Your task to perform on an android device: change the upload size in google photos Image 0: 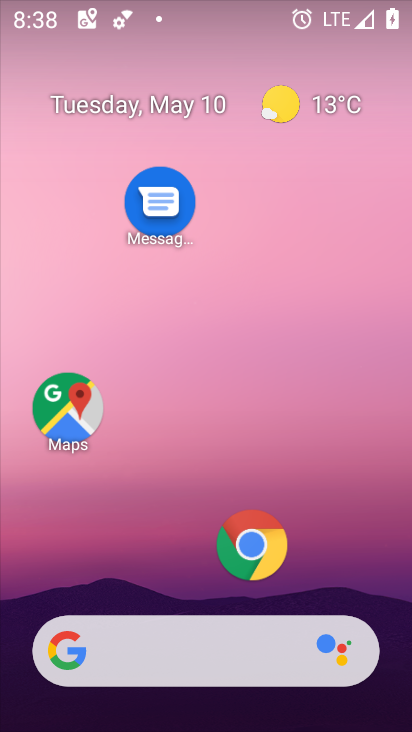
Step 0: drag from (193, 593) to (241, 69)
Your task to perform on an android device: change the upload size in google photos Image 1: 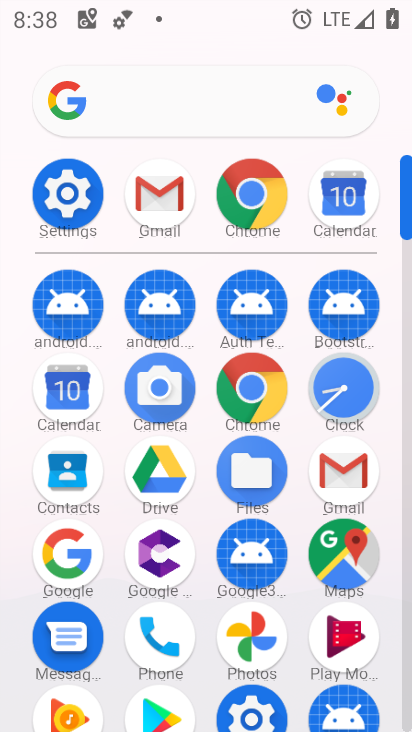
Step 1: click (251, 626)
Your task to perform on an android device: change the upload size in google photos Image 2: 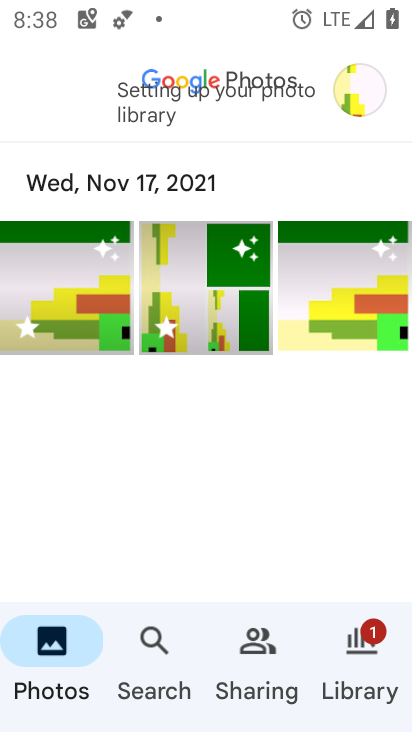
Step 2: click (363, 94)
Your task to perform on an android device: change the upload size in google photos Image 3: 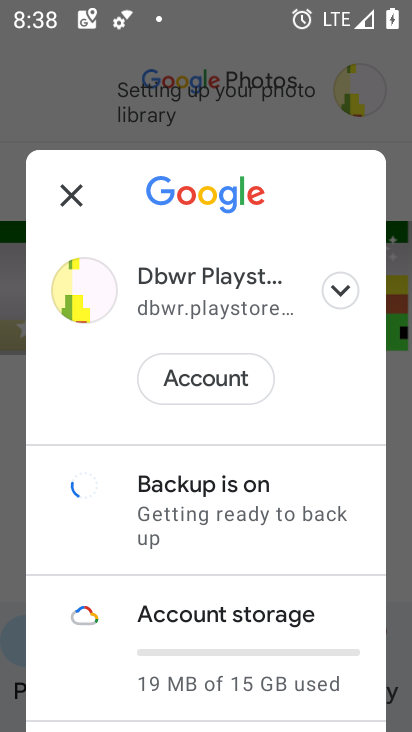
Step 3: click (141, 537)
Your task to perform on an android device: change the upload size in google photos Image 4: 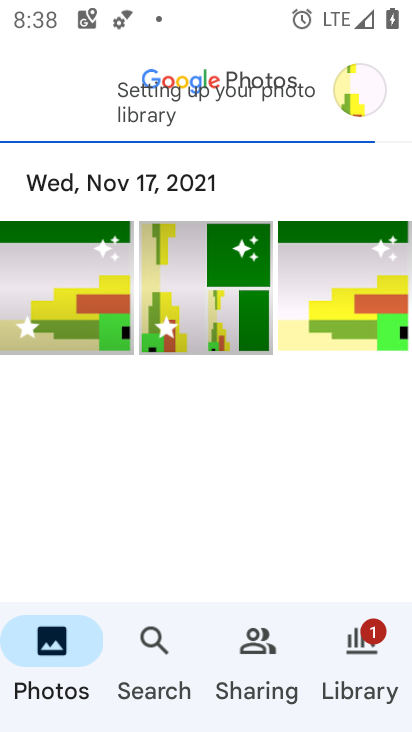
Step 4: click (360, 87)
Your task to perform on an android device: change the upload size in google photos Image 5: 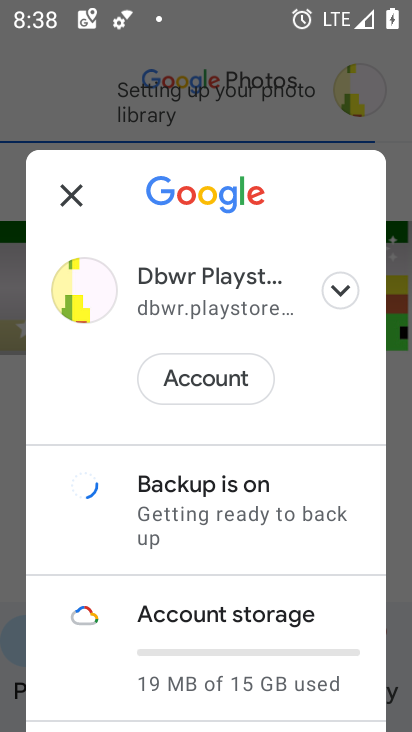
Step 5: click (236, 507)
Your task to perform on an android device: change the upload size in google photos Image 6: 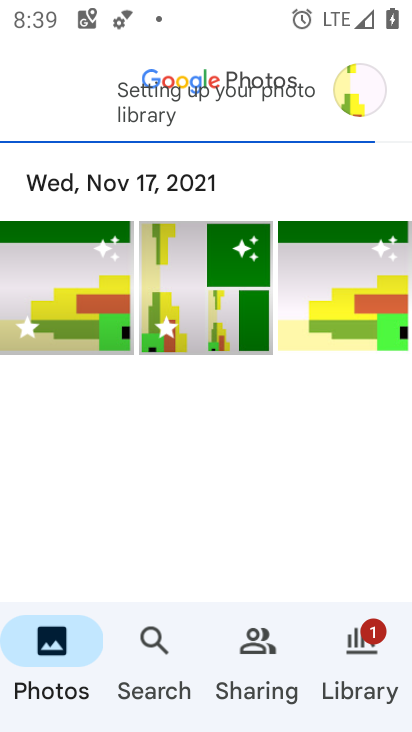
Step 6: click (350, 81)
Your task to perform on an android device: change the upload size in google photos Image 7: 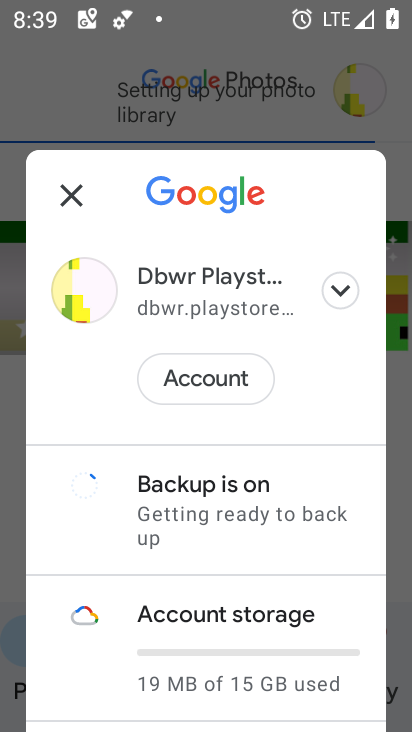
Step 7: drag from (202, 629) to (200, 275)
Your task to perform on an android device: change the upload size in google photos Image 8: 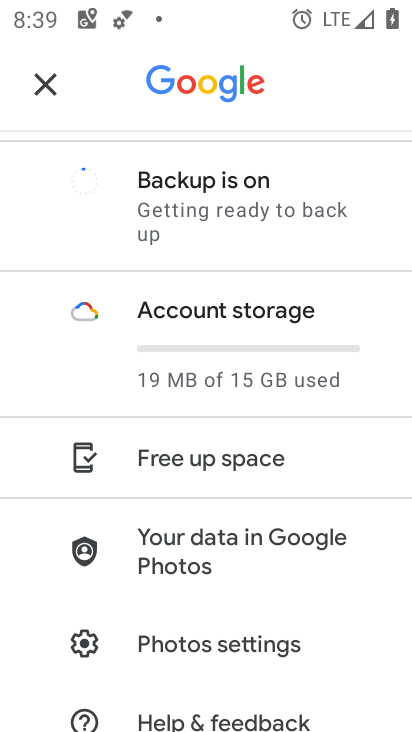
Step 8: click (224, 635)
Your task to perform on an android device: change the upload size in google photos Image 9: 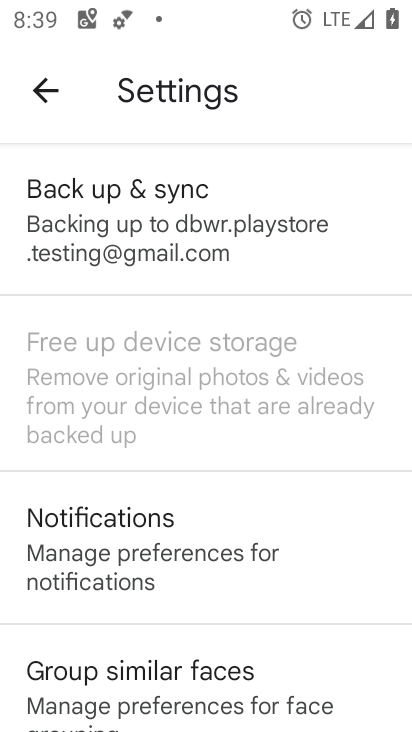
Step 9: click (140, 234)
Your task to perform on an android device: change the upload size in google photos Image 10: 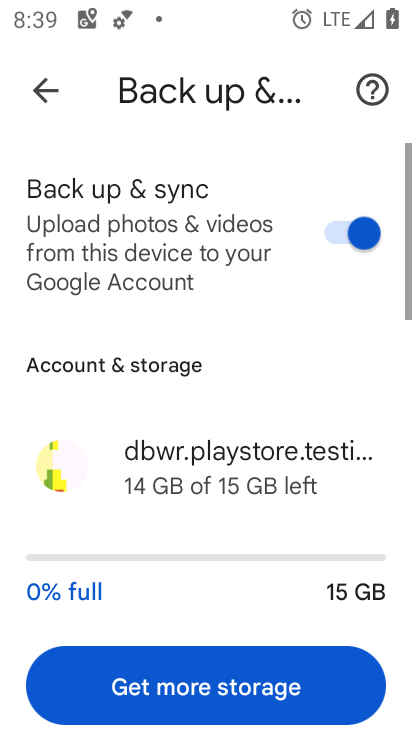
Step 10: drag from (202, 544) to (230, 133)
Your task to perform on an android device: change the upload size in google photos Image 11: 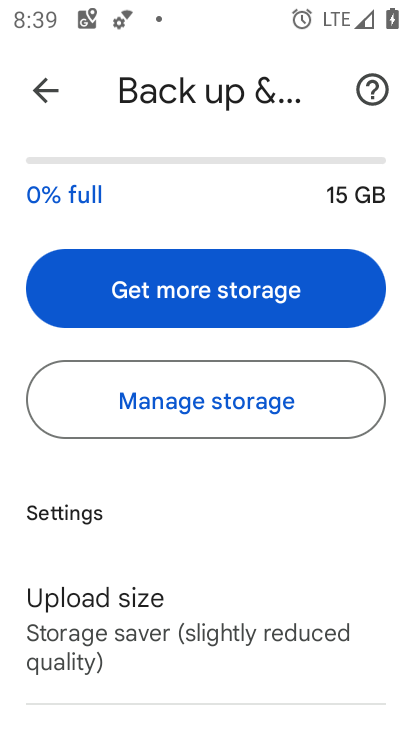
Step 11: click (187, 603)
Your task to perform on an android device: change the upload size in google photos Image 12: 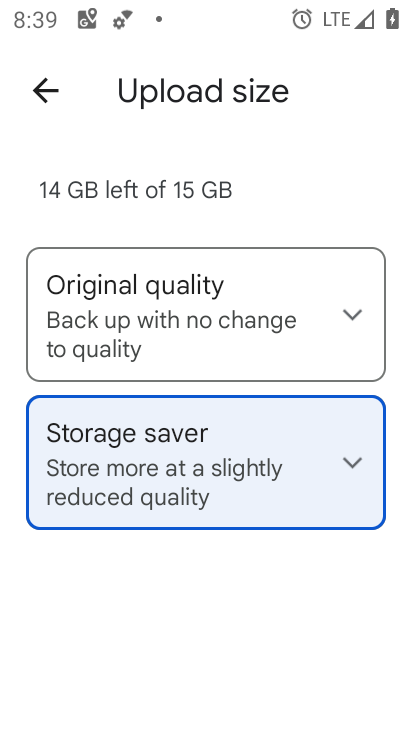
Step 12: click (201, 319)
Your task to perform on an android device: change the upload size in google photos Image 13: 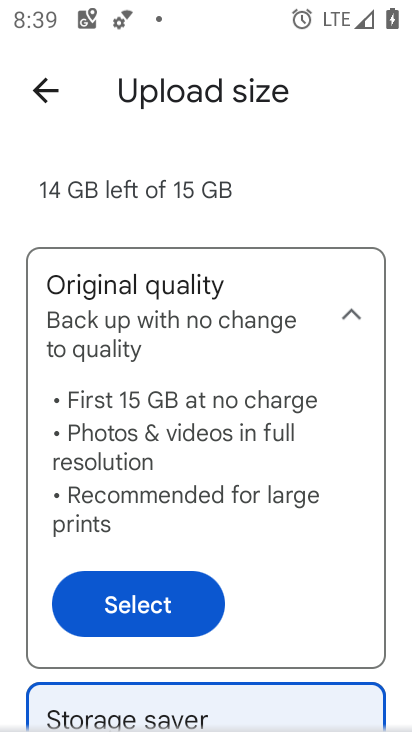
Step 13: click (168, 613)
Your task to perform on an android device: change the upload size in google photos Image 14: 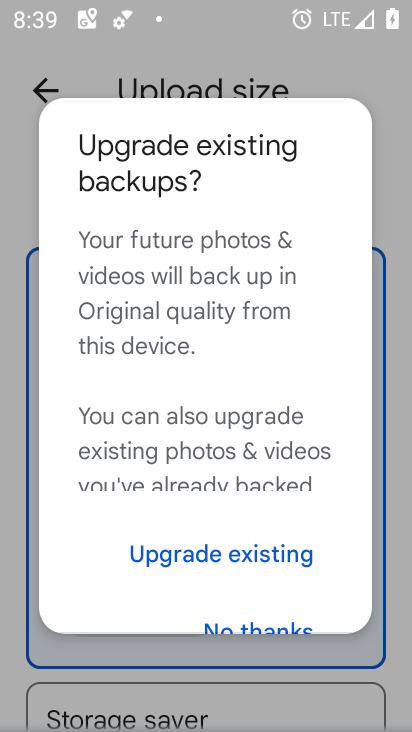
Step 14: click (255, 620)
Your task to perform on an android device: change the upload size in google photos Image 15: 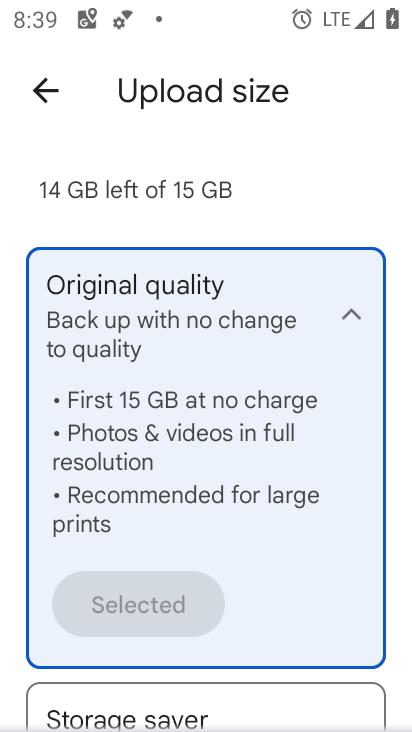
Step 15: task complete